Your task to perform on an android device: toggle javascript in the chrome app Image 0: 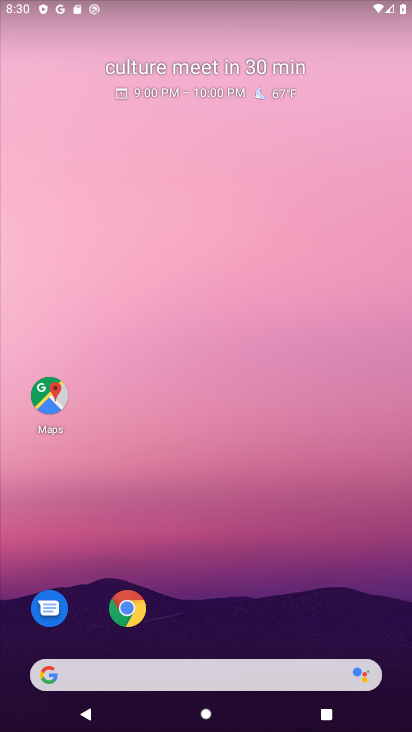
Step 0: click (143, 610)
Your task to perform on an android device: toggle javascript in the chrome app Image 1: 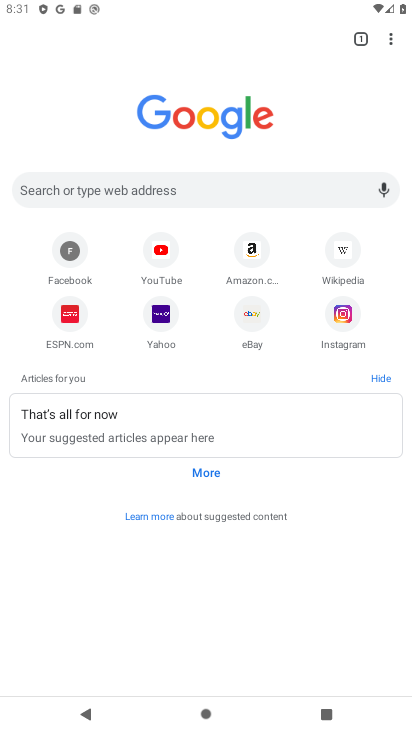
Step 1: click (390, 45)
Your task to perform on an android device: toggle javascript in the chrome app Image 2: 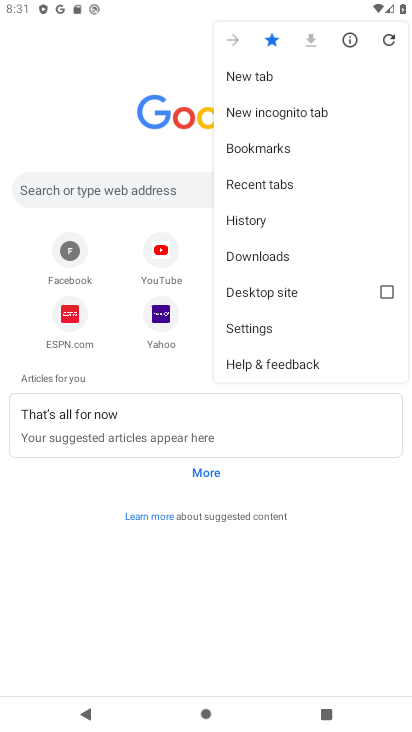
Step 2: click (293, 330)
Your task to perform on an android device: toggle javascript in the chrome app Image 3: 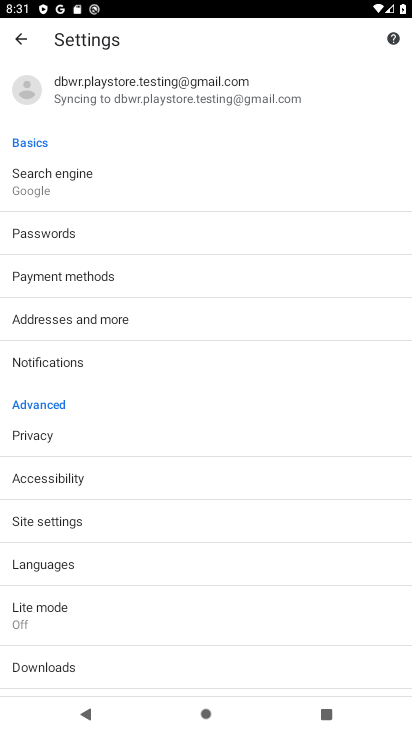
Step 3: click (139, 518)
Your task to perform on an android device: toggle javascript in the chrome app Image 4: 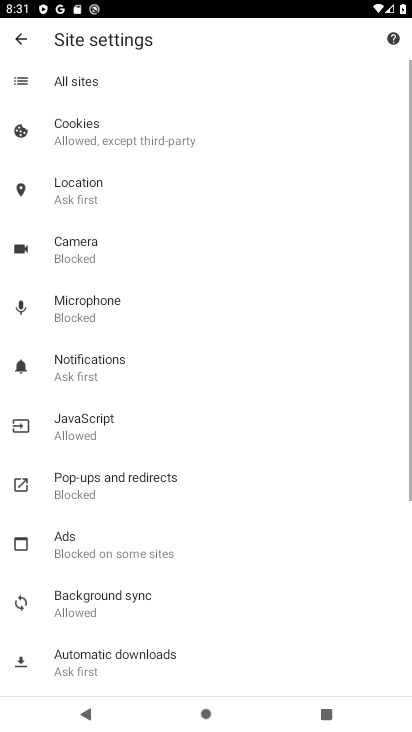
Step 4: drag from (191, 609) to (192, 419)
Your task to perform on an android device: toggle javascript in the chrome app Image 5: 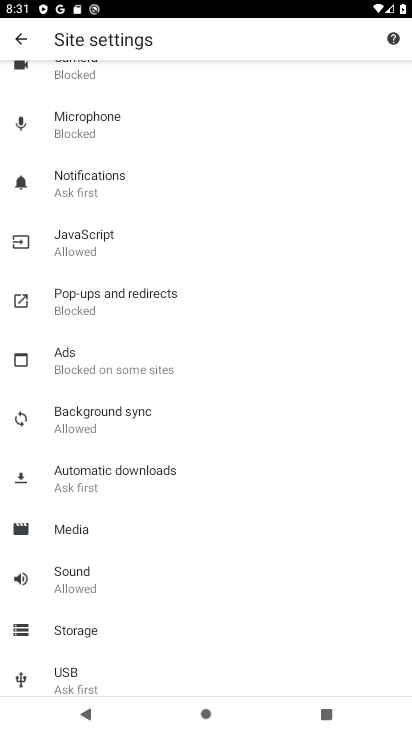
Step 5: click (170, 230)
Your task to perform on an android device: toggle javascript in the chrome app Image 6: 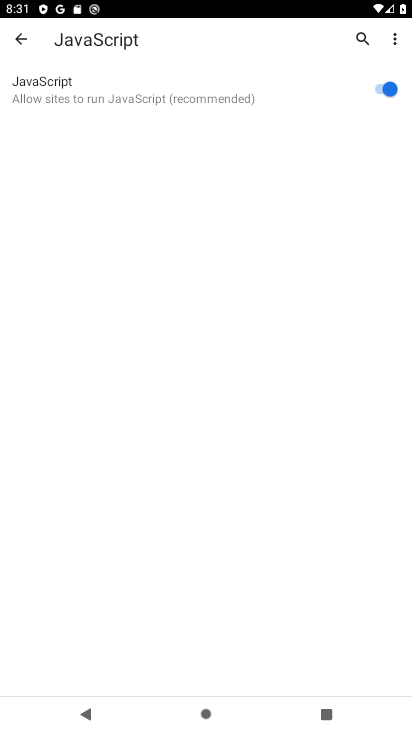
Step 6: click (392, 98)
Your task to perform on an android device: toggle javascript in the chrome app Image 7: 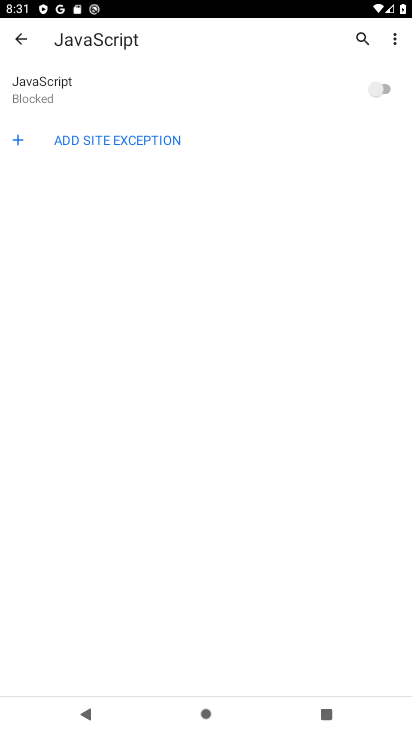
Step 7: task complete